Your task to perform on an android device: set the stopwatch Image 0: 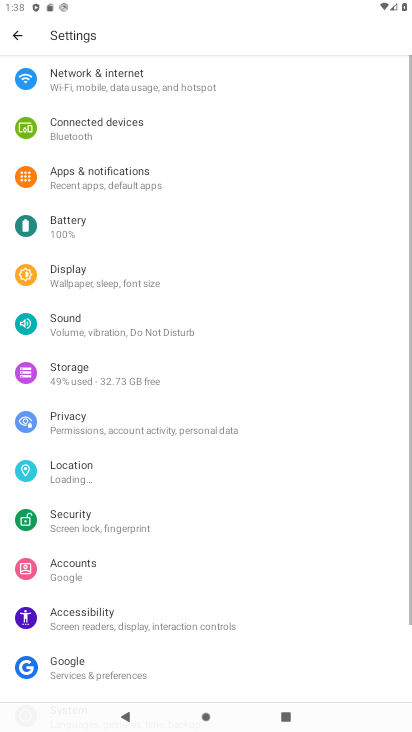
Step 0: press home button
Your task to perform on an android device: set the stopwatch Image 1: 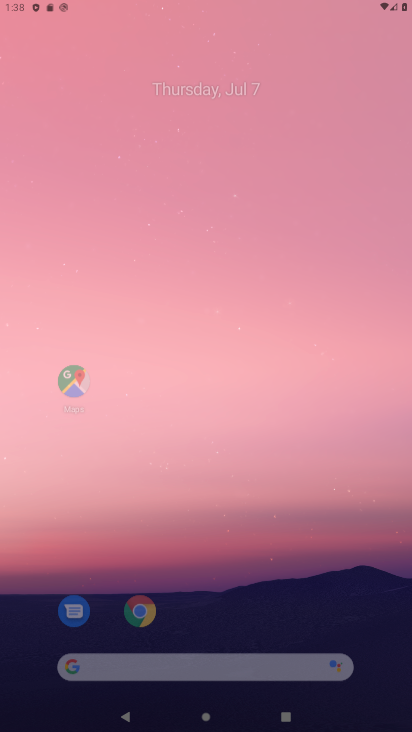
Step 1: drag from (222, 646) to (241, 51)
Your task to perform on an android device: set the stopwatch Image 2: 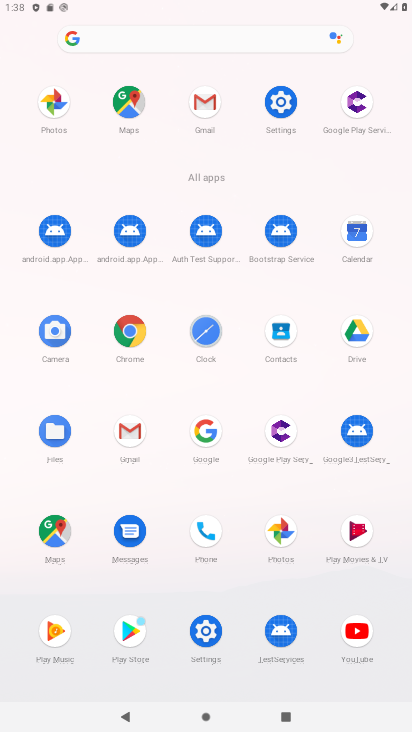
Step 2: click (222, 339)
Your task to perform on an android device: set the stopwatch Image 3: 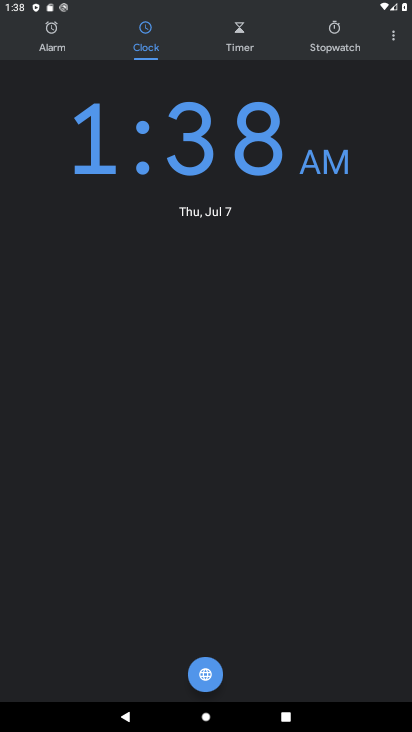
Step 3: click (340, 23)
Your task to perform on an android device: set the stopwatch Image 4: 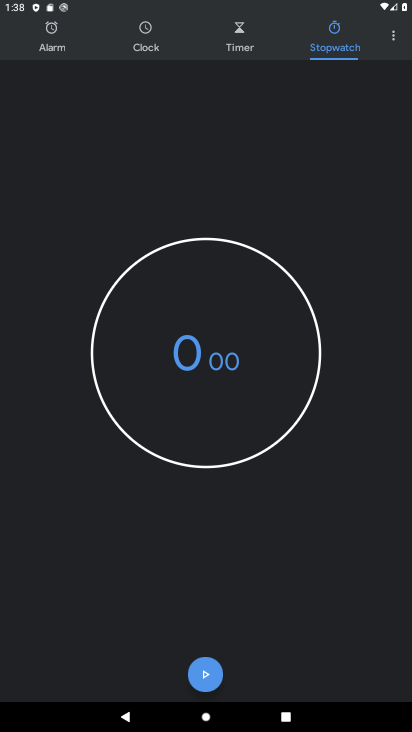
Step 4: click (200, 675)
Your task to perform on an android device: set the stopwatch Image 5: 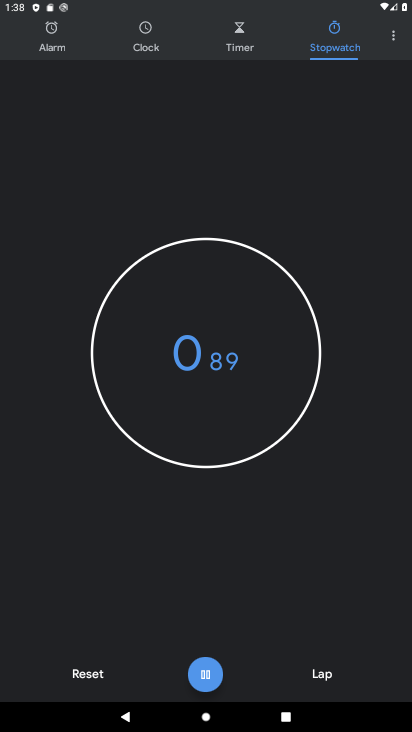
Step 5: task complete